Your task to perform on an android device: Turn on the flashlight Image 0: 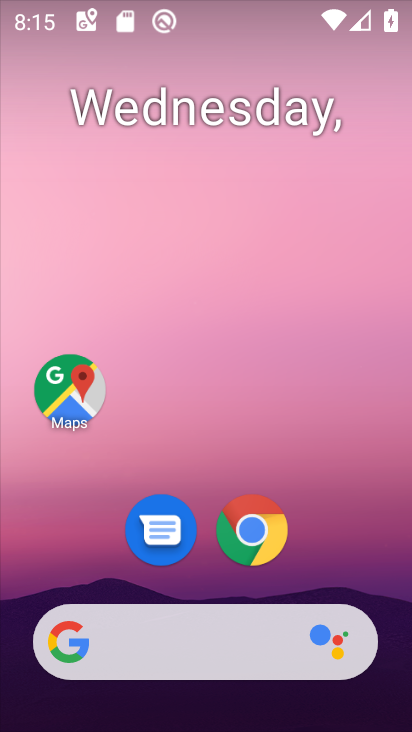
Step 0: drag from (386, 643) to (222, 41)
Your task to perform on an android device: Turn on the flashlight Image 1: 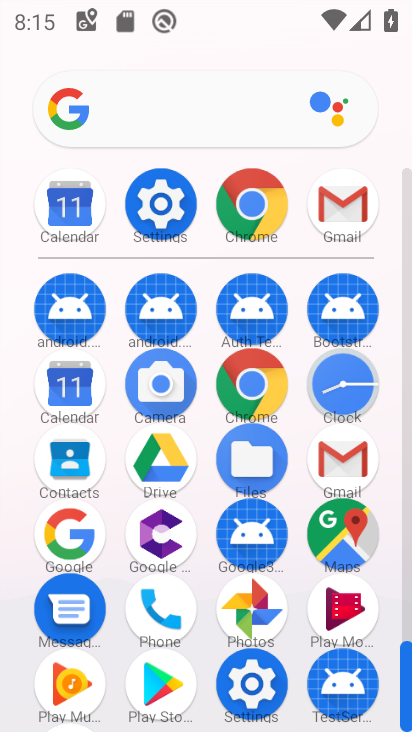
Step 1: click (174, 206)
Your task to perform on an android device: Turn on the flashlight Image 2: 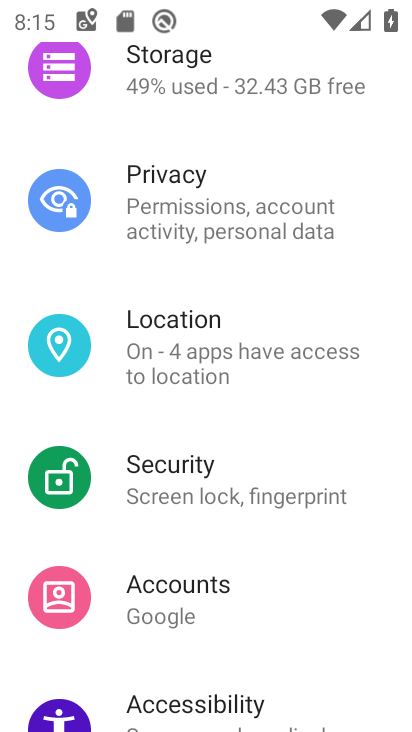
Step 2: task complete